Your task to perform on an android device: turn on wifi Image 0: 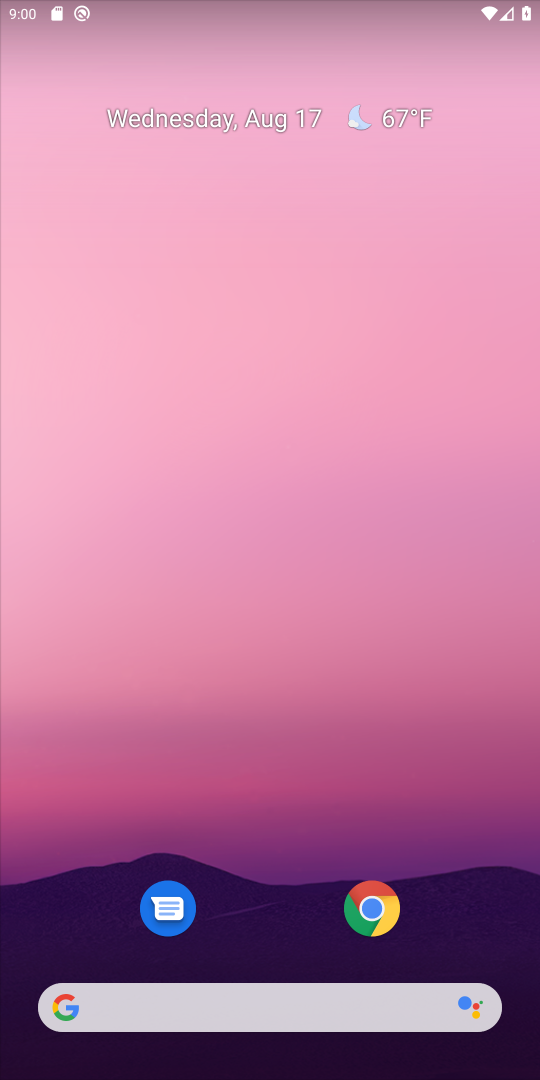
Step 0: drag from (185, 9) to (194, 888)
Your task to perform on an android device: turn on wifi Image 1: 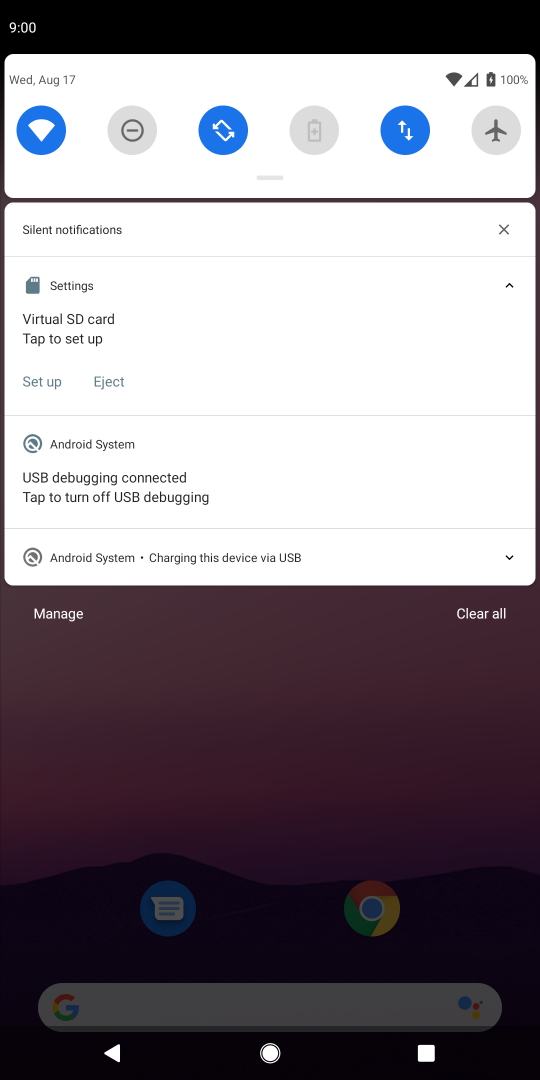
Step 1: task complete